Your task to perform on an android device: Open the calendar app, open the side menu, and click the "Day" option Image 0: 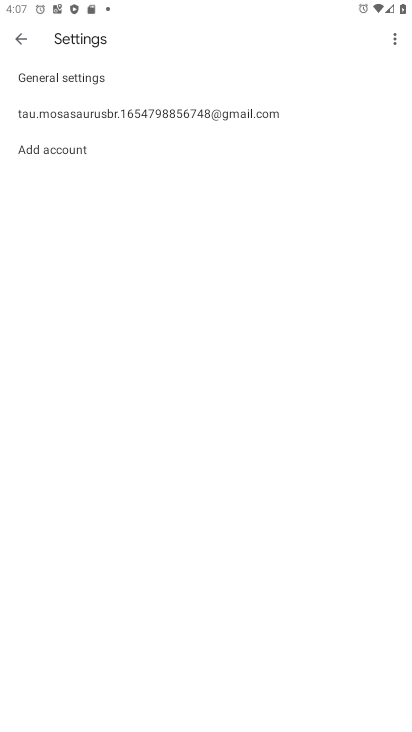
Step 0: press home button
Your task to perform on an android device: Open the calendar app, open the side menu, and click the "Day" option Image 1: 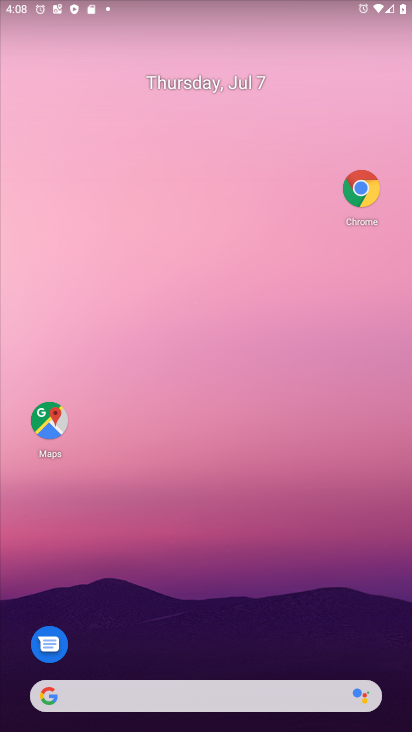
Step 1: drag from (212, 593) to (228, 155)
Your task to perform on an android device: Open the calendar app, open the side menu, and click the "Day" option Image 2: 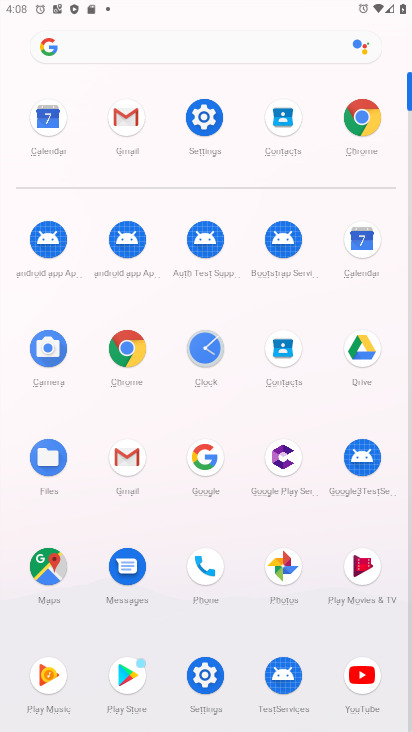
Step 2: click (361, 241)
Your task to perform on an android device: Open the calendar app, open the side menu, and click the "Day" option Image 3: 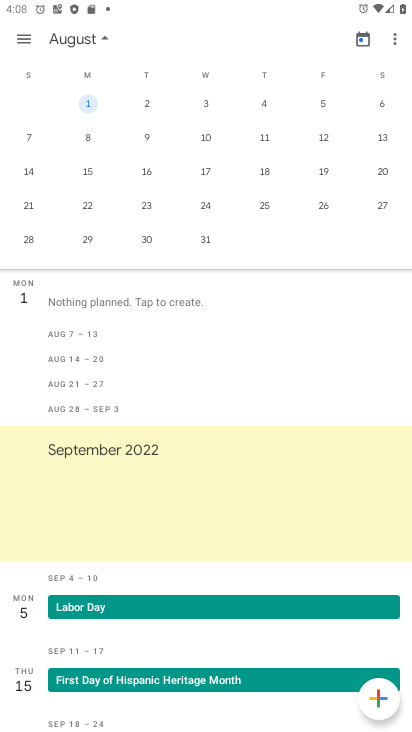
Step 3: click (17, 38)
Your task to perform on an android device: Open the calendar app, open the side menu, and click the "Day" option Image 4: 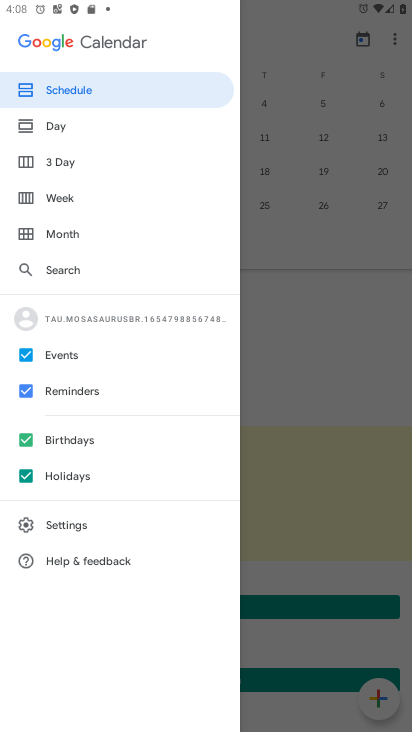
Step 4: click (47, 118)
Your task to perform on an android device: Open the calendar app, open the side menu, and click the "Day" option Image 5: 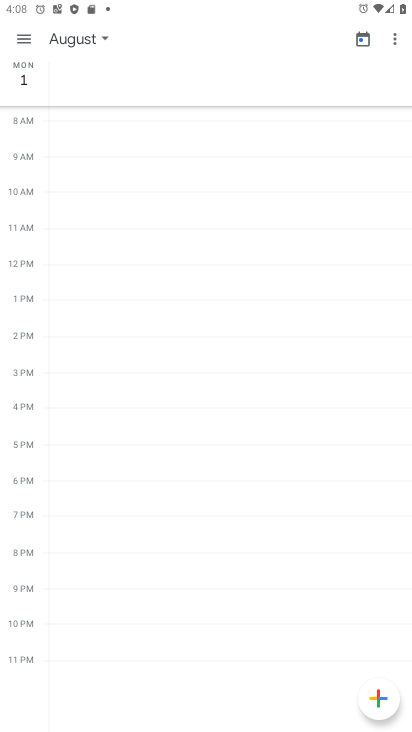
Step 5: task complete